Your task to perform on an android device: open app "Walmart Shopping & Grocery" (install if not already installed) Image 0: 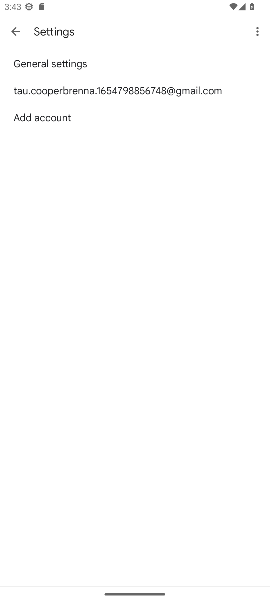
Step 0: click (13, 25)
Your task to perform on an android device: open app "Walmart Shopping & Grocery" (install if not already installed) Image 1: 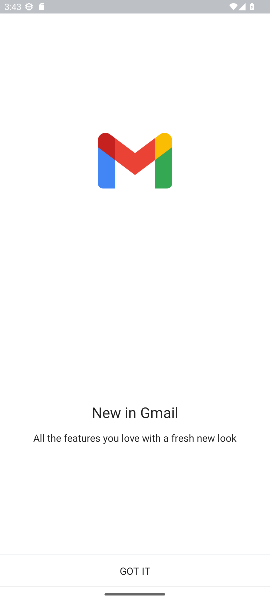
Step 1: click (142, 570)
Your task to perform on an android device: open app "Walmart Shopping & Grocery" (install if not already installed) Image 2: 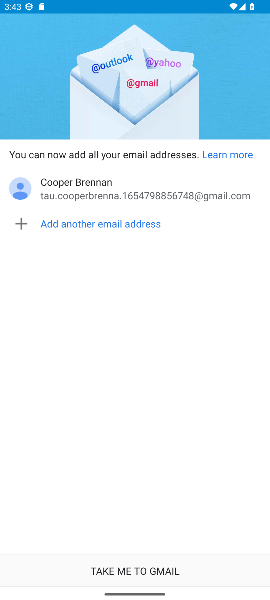
Step 2: click (142, 570)
Your task to perform on an android device: open app "Walmart Shopping & Grocery" (install if not already installed) Image 3: 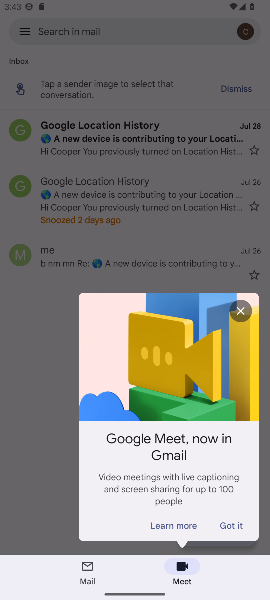
Step 3: click (238, 308)
Your task to perform on an android device: open app "Walmart Shopping & Grocery" (install if not already installed) Image 4: 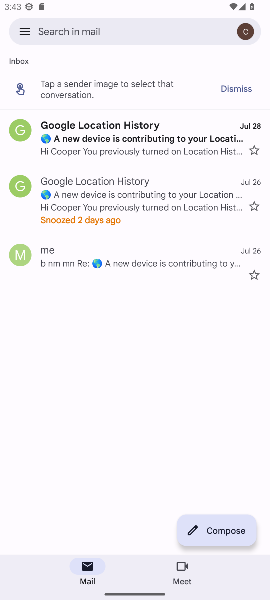
Step 4: press home button
Your task to perform on an android device: open app "Walmart Shopping & Grocery" (install if not already installed) Image 5: 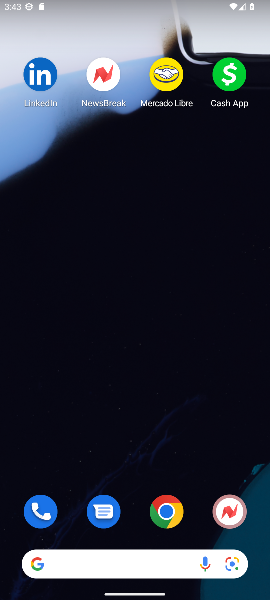
Step 5: drag from (133, 555) to (110, 116)
Your task to perform on an android device: open app "Walmart Shopping & Grocery" (install if not already installed) Image 6: 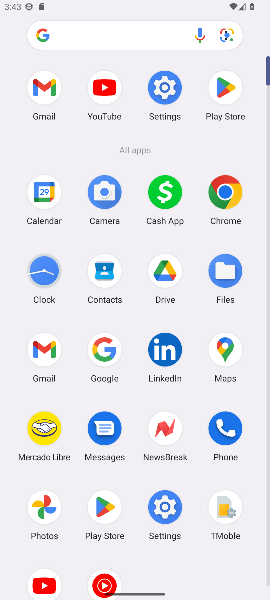
Step 6: click (102, 506)
Your task to perform on an android device: open app "Walmart Shopping & Grocery" (install if not already installed) Image 7: 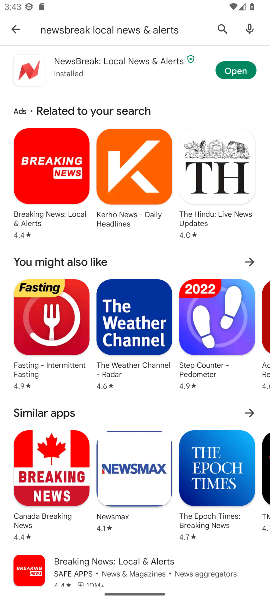
Step 7: click (20, 26)
Your task to perform on an android device: open app "Walmart Shopping & Grocery" (install if not already installed) Image 8: 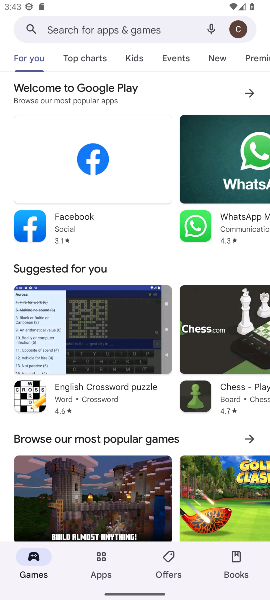
Step 8: click (50, 30)
Your task to perform on an android device: open app "Walmart Shopping & Grocery" (install if not already installed) Image 9: 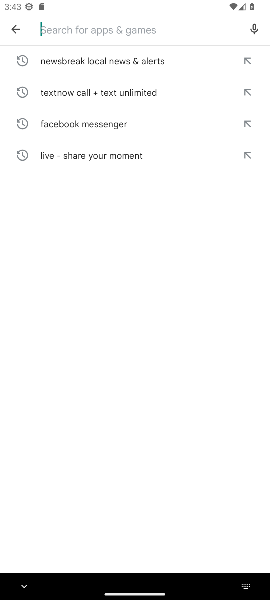
Step 9: type "Walmart Shopping & Grocery"
Your task to perform on an android device: open app "Walmart Shopping & Grocery" (install if not already installed) Image 10: 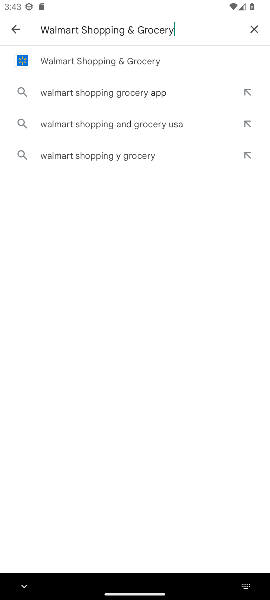
Step 10: click (92, 61)
Your task to perform on an android device: open app "Walmart Shopping & Grocery" (install if not already installed) Image 11: 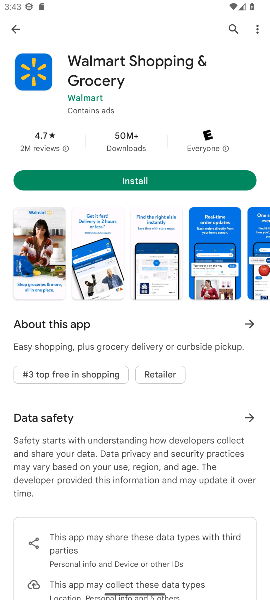
Step 11: click (142, 183)
Your task to perform on an android device: open app "Walmart Shopping & Grocery" (install if not already installed) Image 12: 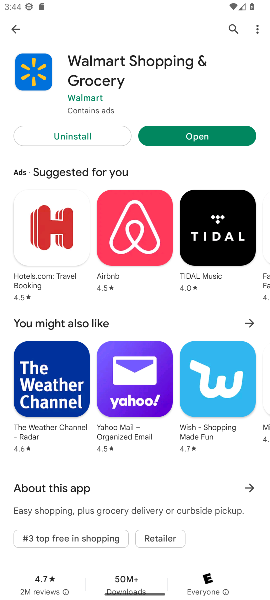
Step 12: click (203, 133)
Your task to perform on an android device: open app "Walmart Shopping & Grocery" (install if not already installed) Image 13: 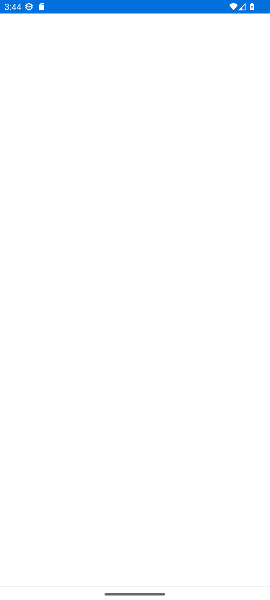
Step 13: task complete